Your task to perform on an android device: See recent photos Image 0: 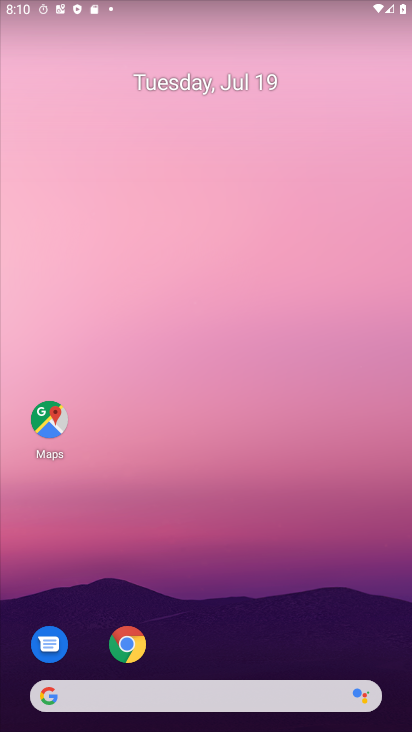
Step 0: drag from (40, 641) to (232, 199)
Your task to perform on an android device: See recent photos Image 1: 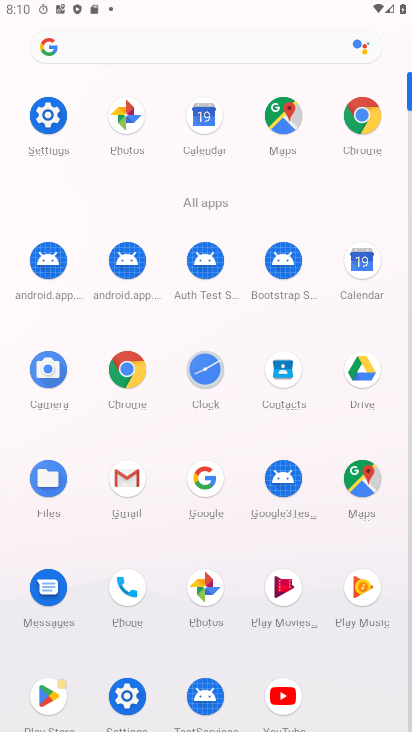
Step 1: click (210, 596)
Your task to perform on an android device: See recent photos Image 2: 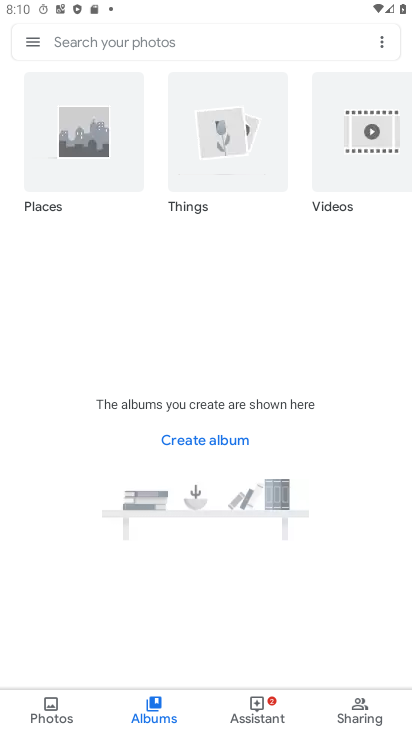
Step 2: click (55, 710)
Your task to perform on an android device: See recent photos Image 3: 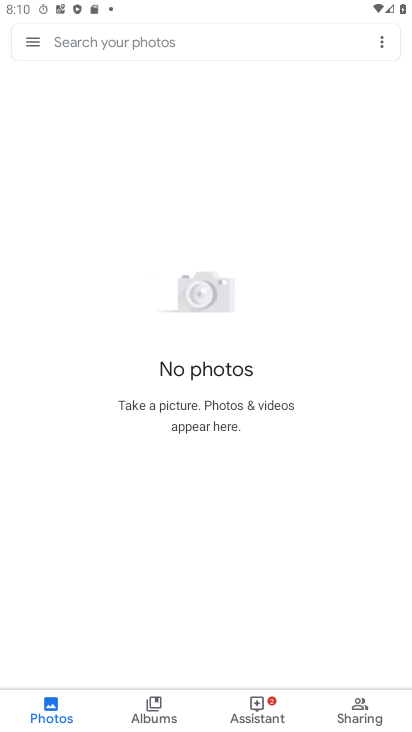
Step 3: task complete